Your task to perform on an android device: change text size in settings app Image 0: 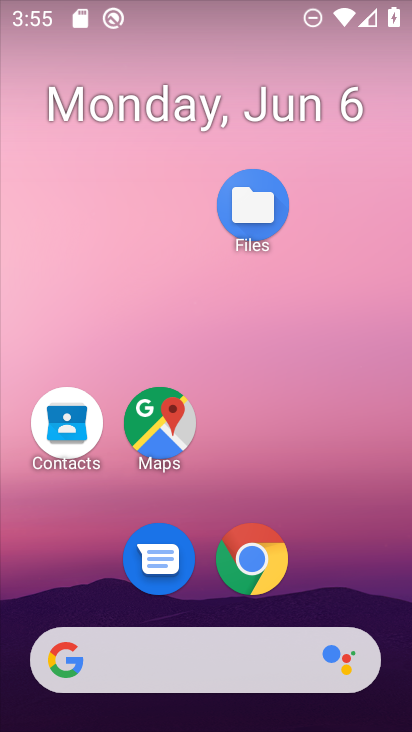
Step 0: drag from (237, 551) to (277, 74)
Your task to perform on an android device: change text size in settings app Image 1: 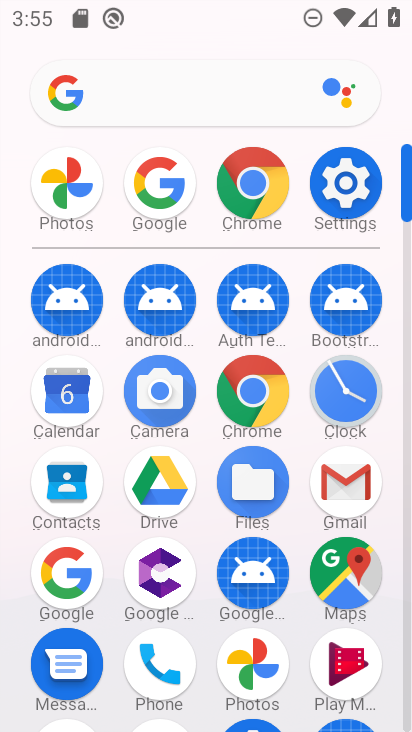
Step 1: click (354, 195)
Your task to perform on an android device: change text size in settings app Image 2: 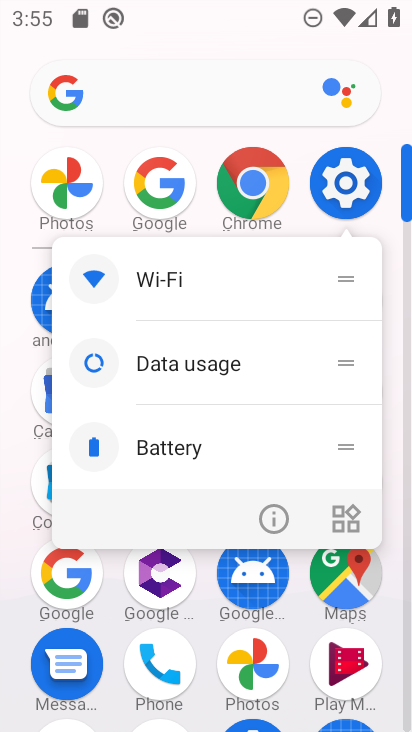
Step 2: click (375, 174)
Your task to perform on an android device: change text size in settings app Image 3: 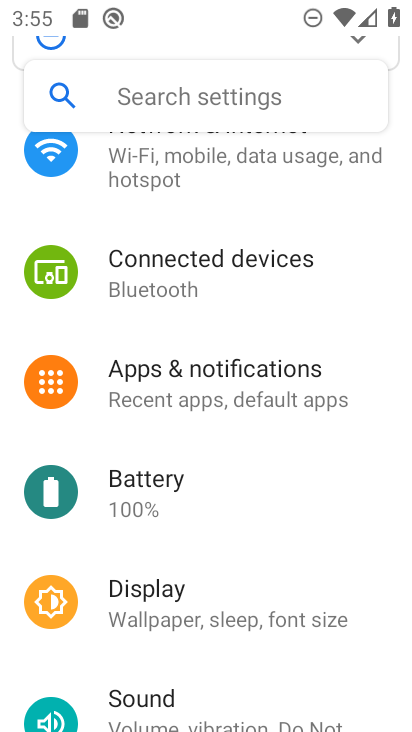
Step 3: click (225, 589)
Your task to perform on an android device: change text size in settings app Image 4: 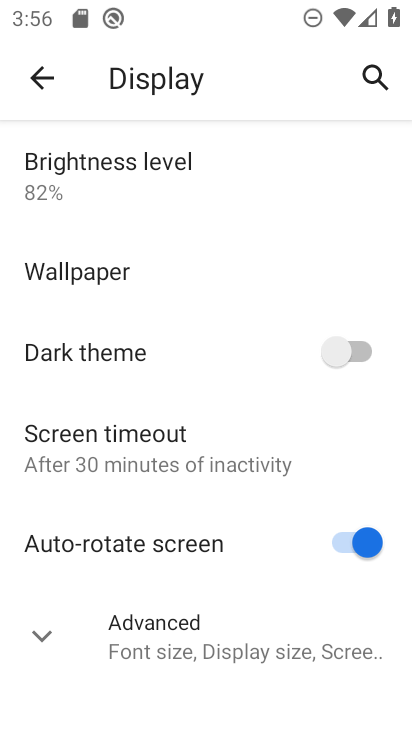
Step 4: click (170, 647)
Your task to perform on an android device: change text size in settings app Image 5: 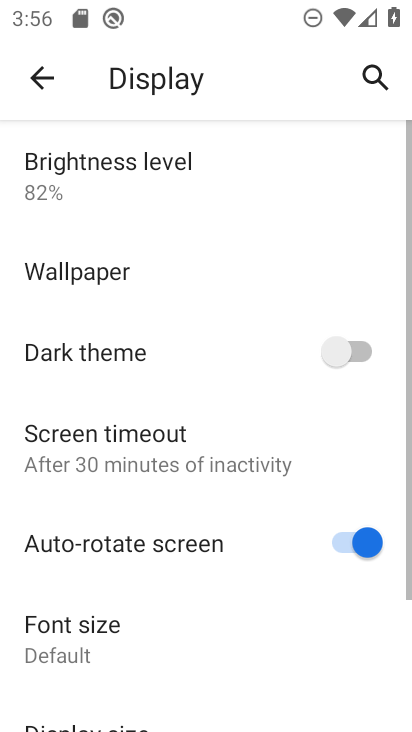
Step 5: drag from (165, 605) to (197, 318)
Your task to perform on an android device: change text size in settings app Image 6: 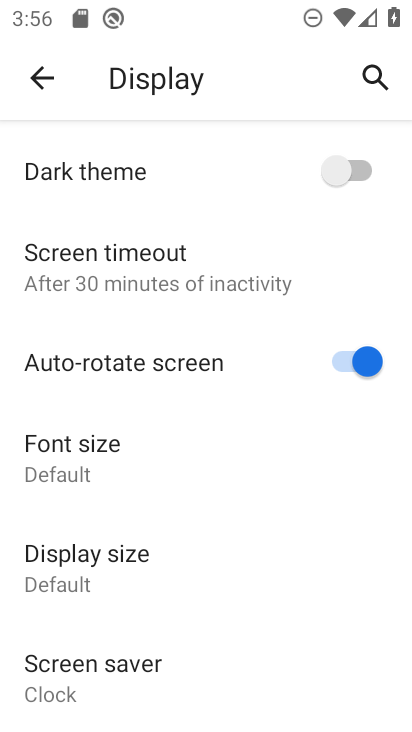
Step 6: click (164, 454)
Your task to perform on an android device: change text size in settings app Image 7: 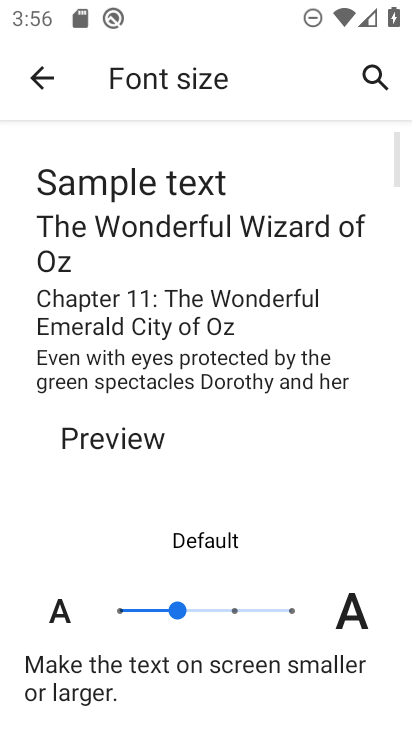
Step 7: task complete